Your task to perform on an android device: allow notifications from all sites in the chrome app Image 0: 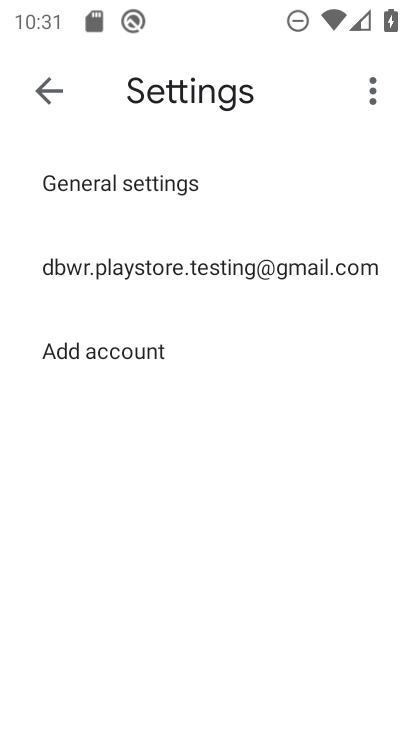
Step 0: click (260, 272)
Your task to perform on an android device: allow notifications from all sites in the chrome app Image 1: 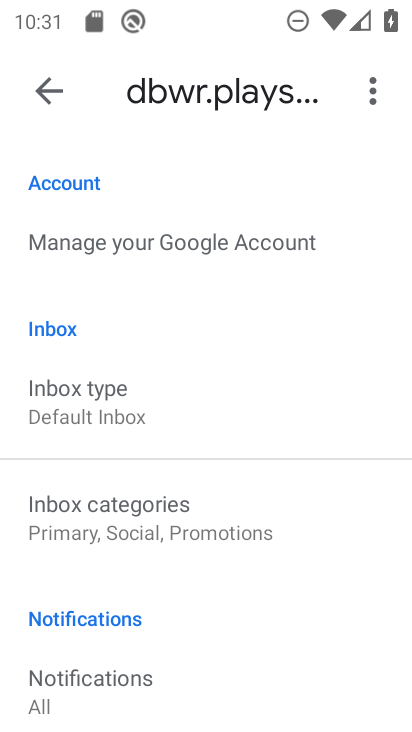
Step 1: drag from (127, 660) to (126, 174)
Your task to perform on an android device: allow notifications from all sites in the chrome app Image 2: 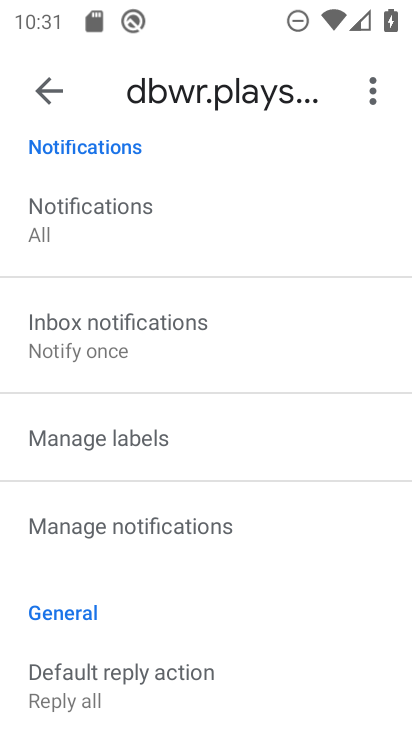
Step 2: drag from (115, 645) to (115, 179)
Your task to perform on an android device: allow notifications from all sites in the chrome app Image 3: 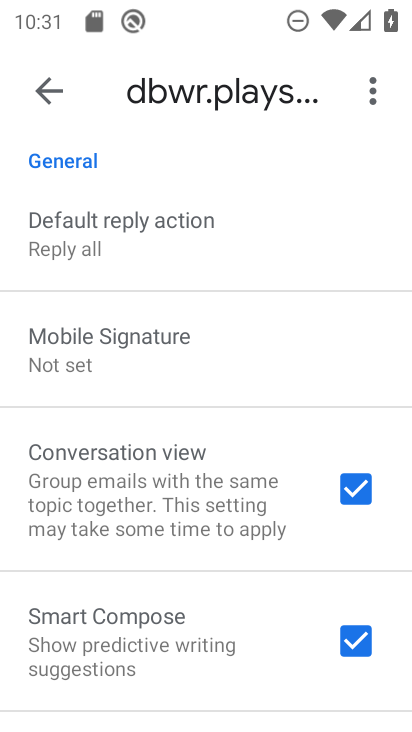
Step 3: drag from (137, 289) to (44, 716)
Your task to perform on an android device: allow notifications from all sites in the chrome app Image 4: 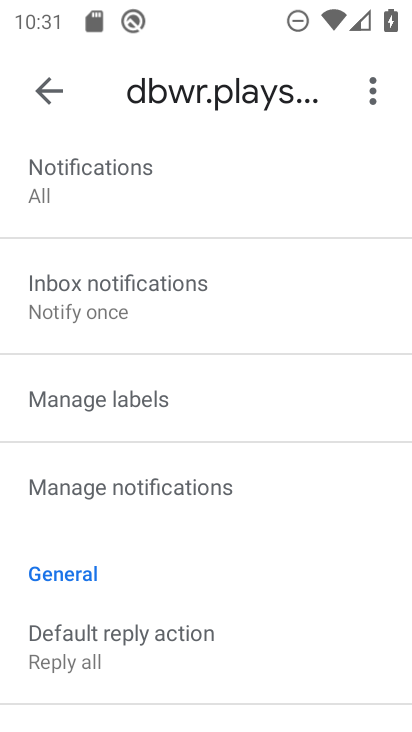
Step 4: drag from (131, 202) to (109, 545)
Your task to perform on an android device: allow notifications from all sites in the chrome app Image 5: 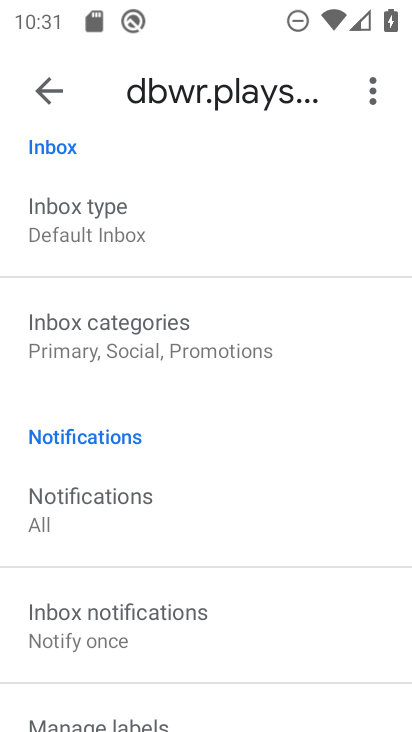
Step 5: drag from (94, 557) to (100, 140)
Your task to perform on an android device: allow notifications from all sites in the chrome app Image 6: 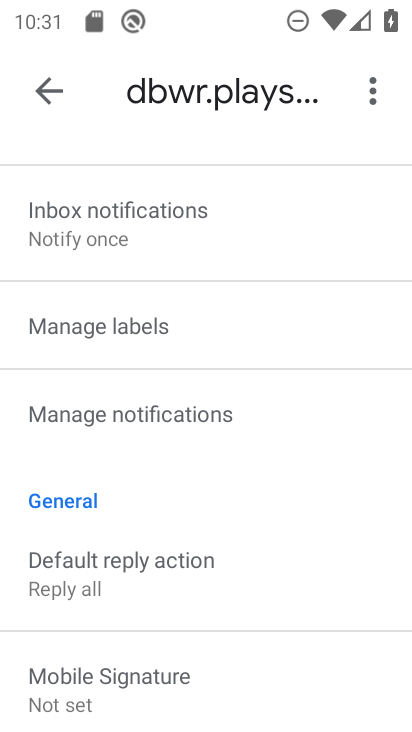
Step 6: click (103, 415)
Your task to perform on an android device: allow notifications from all sites in the chrome app Image 7: 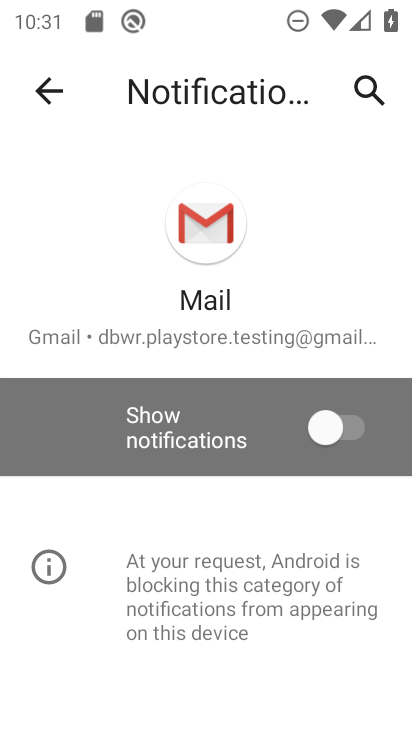
Step 7: click (342, 446)
Your task to perform on an android device: allow notifications from all sites in the chrome app Image 8: 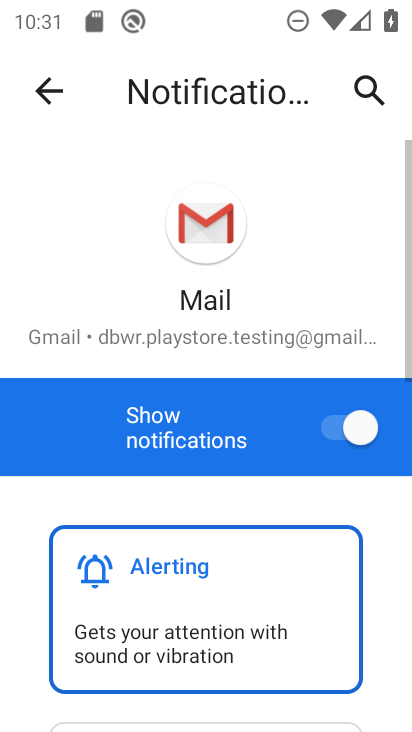
Step 8: task complete